Your task to perform on an android device: turn on sleep mode Image 0: 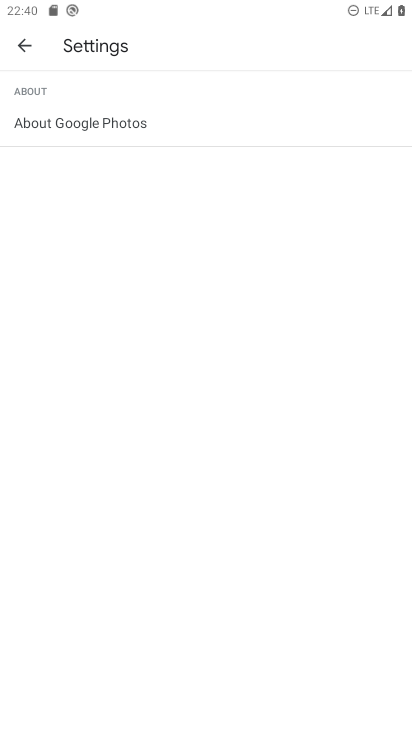
Step 0: press home button
Your task to perform on an android device: turn on sleep mode Image 1: 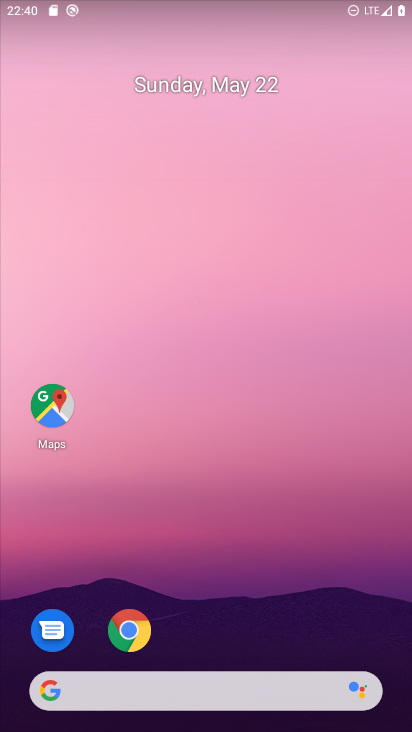
Step 1: drag from (188, 683) to (378, 5)
Your task to perform on an android device: turn on sleep mode Image 2: 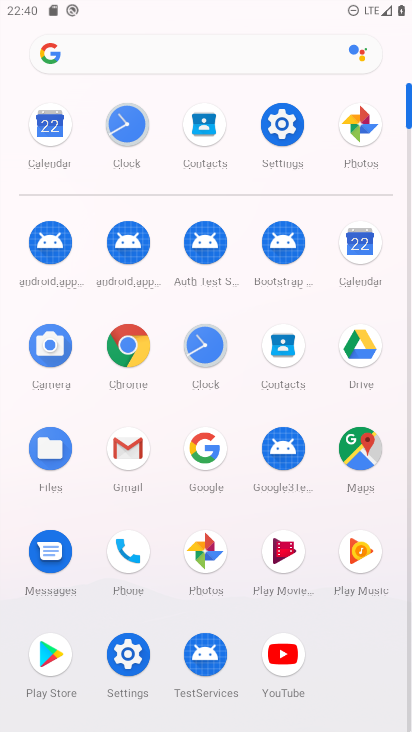
Step 2: click (293, 125)
Your task to perform on an android device: turn on sleep mode Image 3: 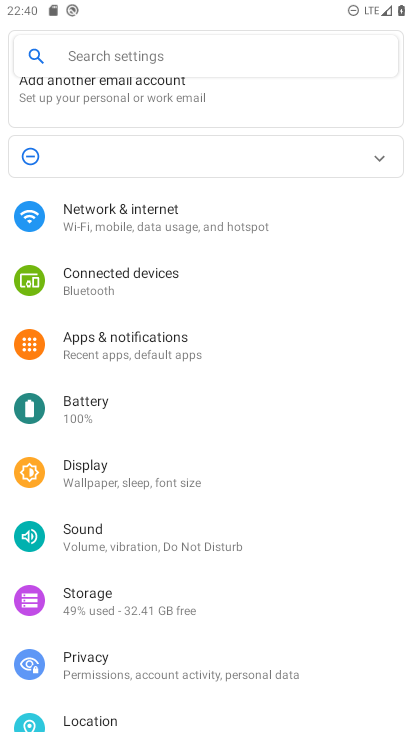
Step 3: click (165, 481)
Your task to perform on an android device: turn on sleep mode Image 4: 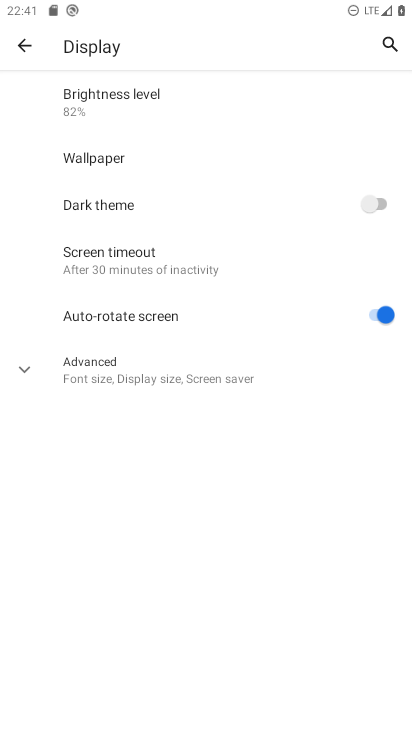
Step 4: task complete